Your task to perform on an android device: uninstall "Roku - Official Remote Control" Image 0: 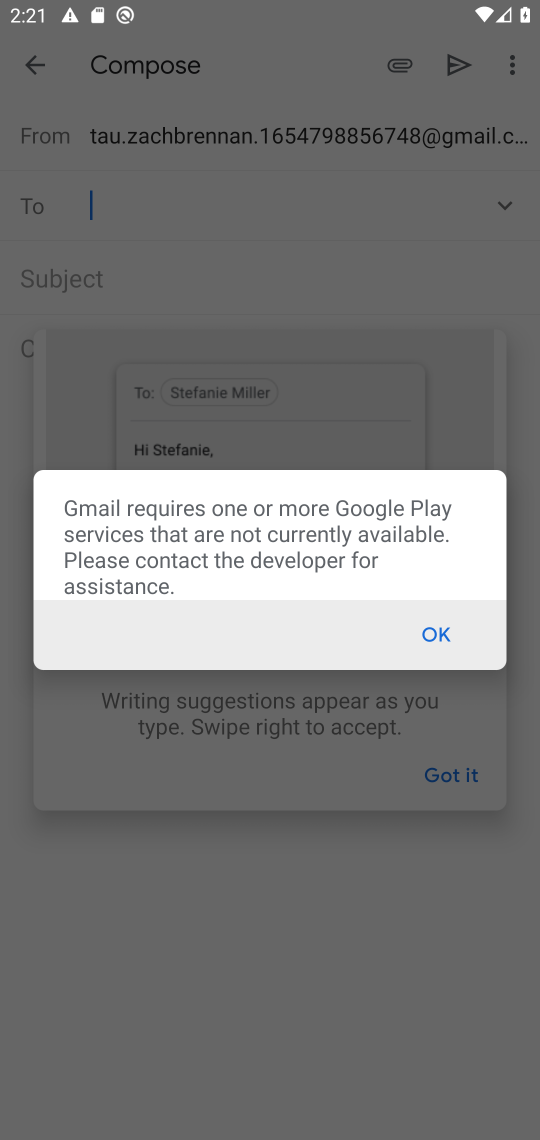
Step 0: press home button
Your task to perform on an android device: uninstall "Roku - Official Remote Control" Image 1: 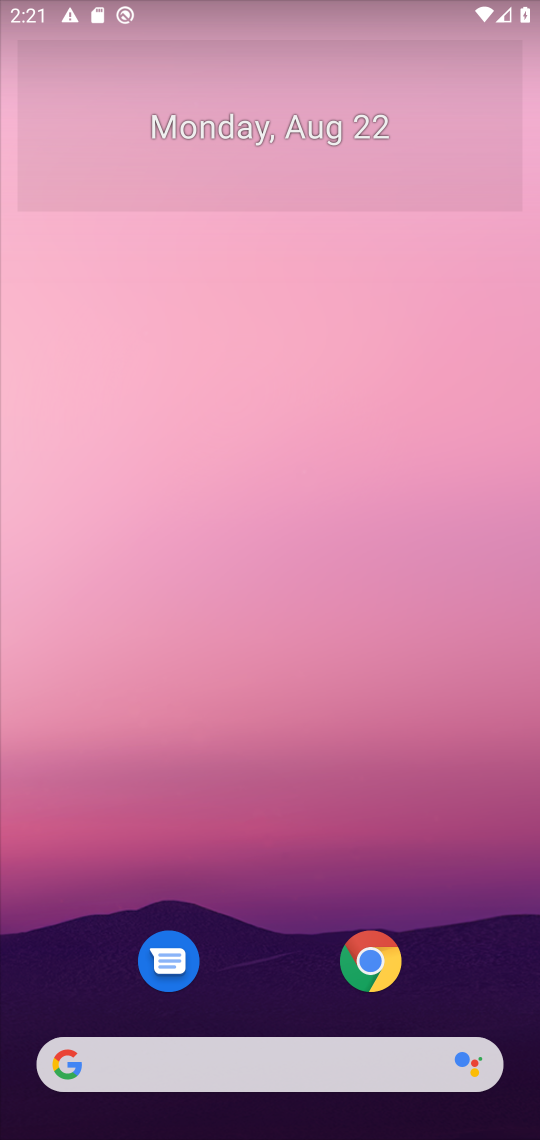
Step 1: drag from (456, 994) to (489, 137)
Your task to perform on an android device: uninstall "Roku - Official Remote Control" Image 2: 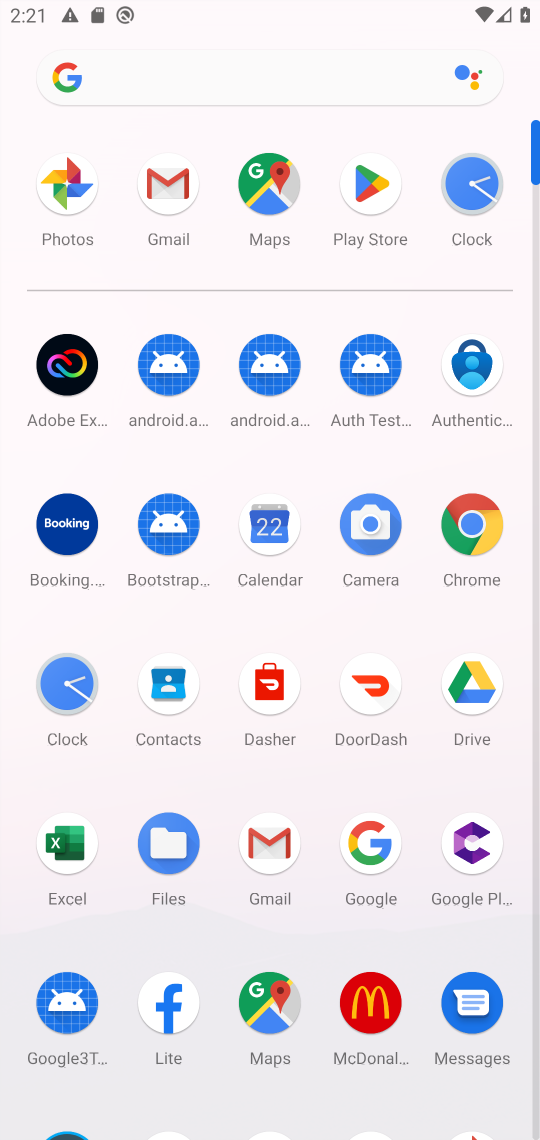
Step 2: click (374, 187)
Your task to perform on an android device: uninstall "Roku - Official Remote Control" Image 3: 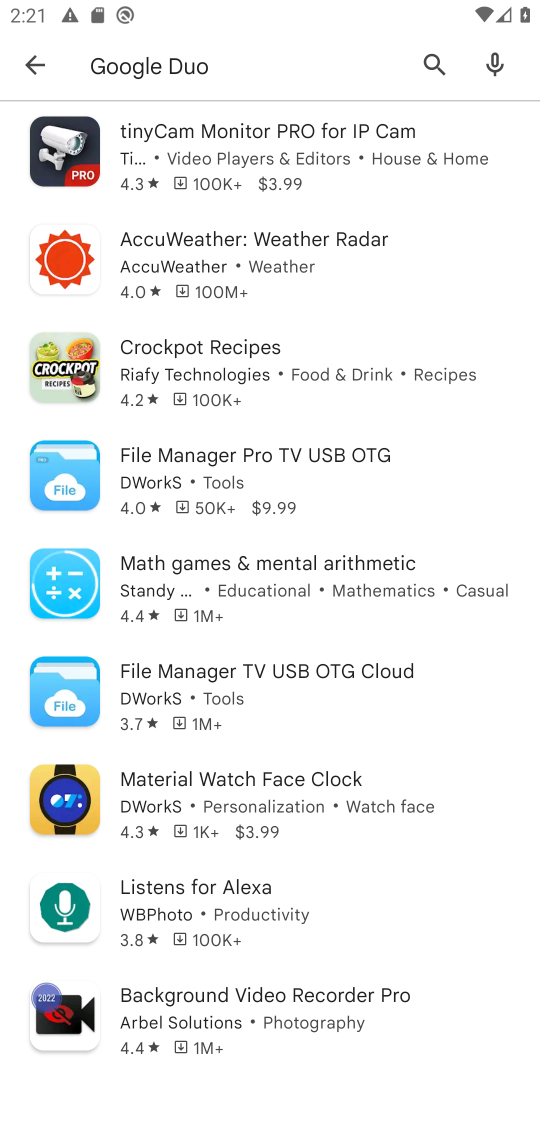
Step 3: press back button
Your task to perform on an android device: uninstall "Roku - Official Remote Control" Image 4: 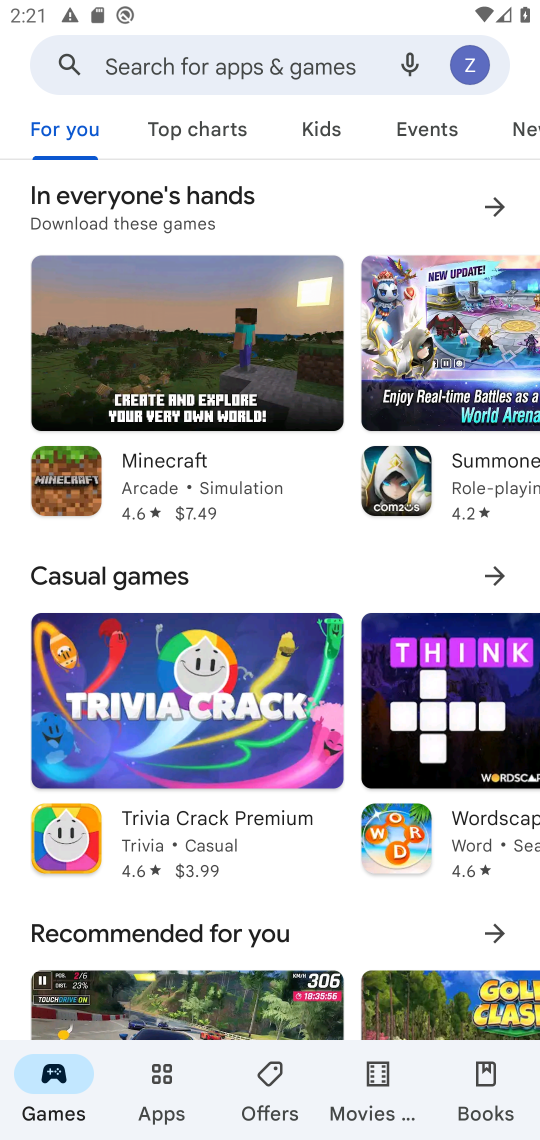
Step 4: click (198, 71)
Your task to perform on an android device: uninstall "Roku - Official Remote Control" Image 5: 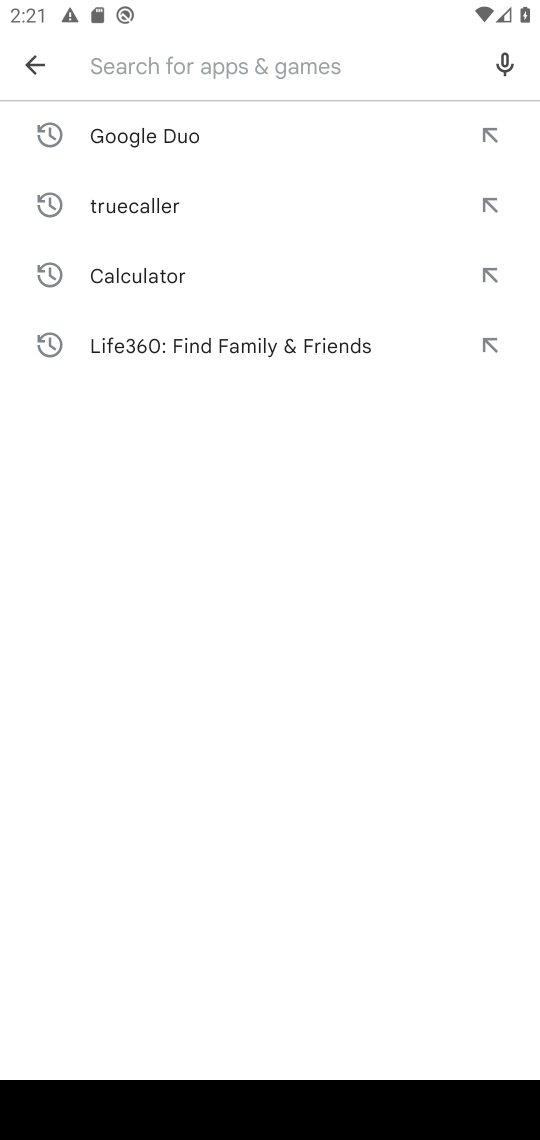
Step 5: type "Roku - Official Remote Control"
Your task to perform on an android device: uninstall "Roku - Official Remote Control" Image 6: 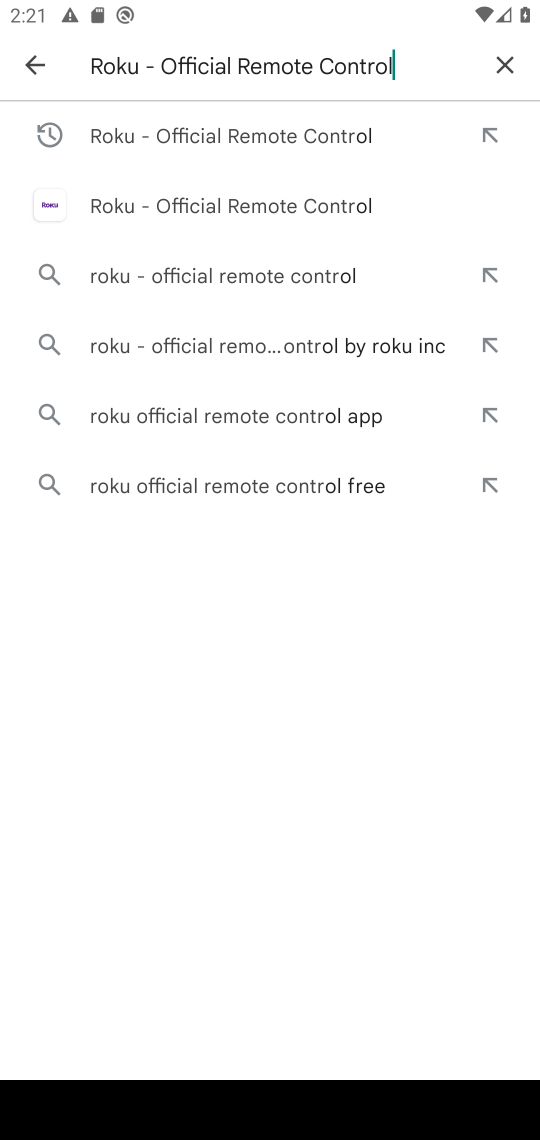
Step 6: press enter
Your task to perform on an android device: uninstall "Roku - Official Remote Control" Image 7: 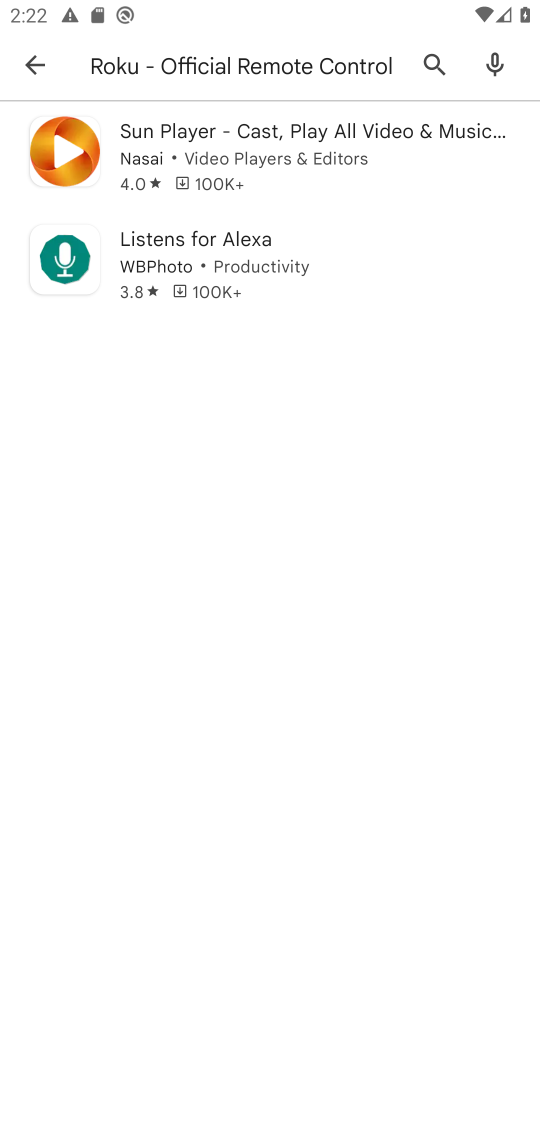
Step 7: task complete